Your task to perform on an android device: open chrome and create a bookmark for the current page Image 0: 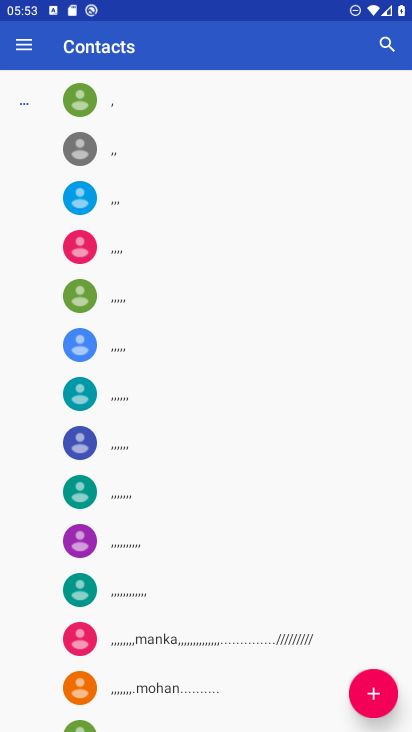
Step 0: press home button
Your task to perform on an android device: open chrome and create a bookmark for the current page Image 1: 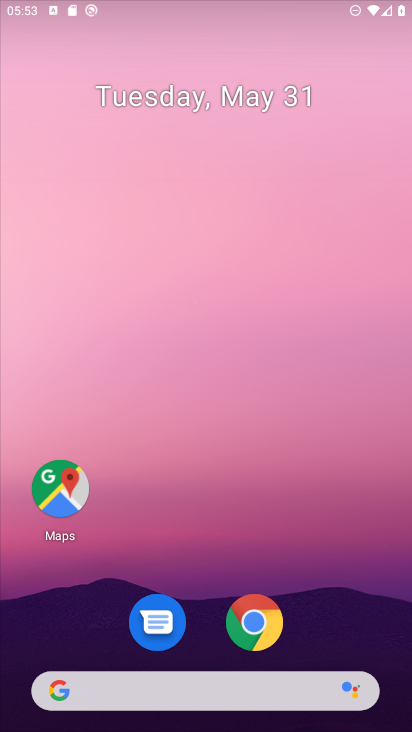
Step 1: drag from (268, 659) to (351, 12)
Your task to perform on an android device: open chrome and create a bookmark for the current page Image 2: 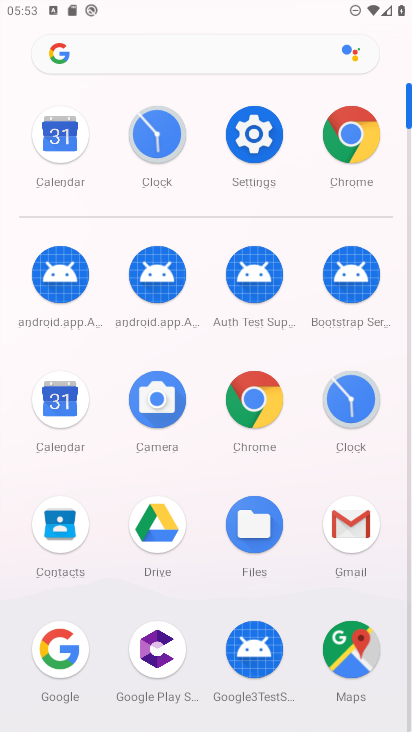
Step 2: click (240, 401)
Your task to perform on an android device: open chrome and create a bookmark for the current page Image 3: 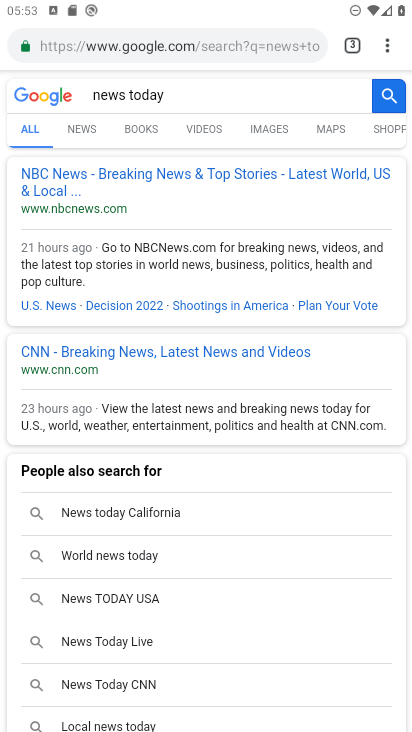
Step 3: click (380, 50)
Your task to perform on an android device: open chrome and create a bookmark for the current page Image 4: 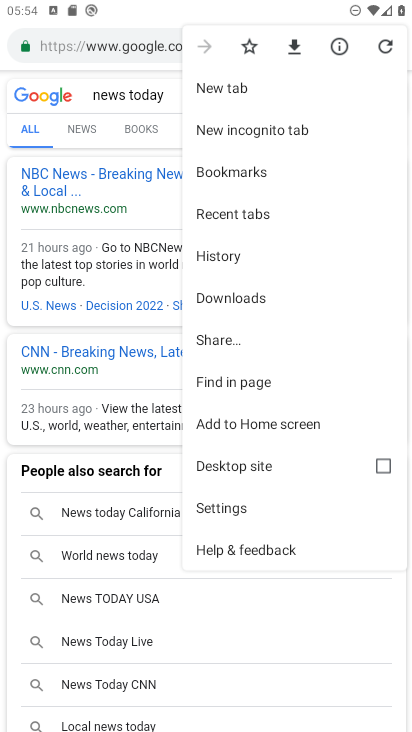
Step 4: click (238, 177)
Your task to perform on an android device: open chrome and create a bookmark for the current page Image 5: 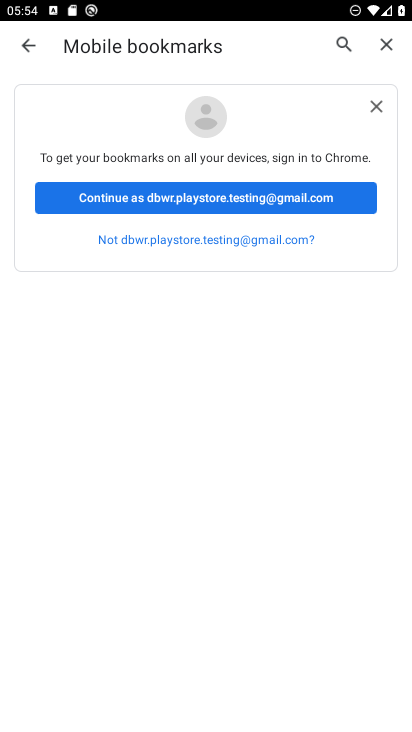
Step 5: task complete